Your task to perform on an android device: change the clock display to show seconds Image 0: 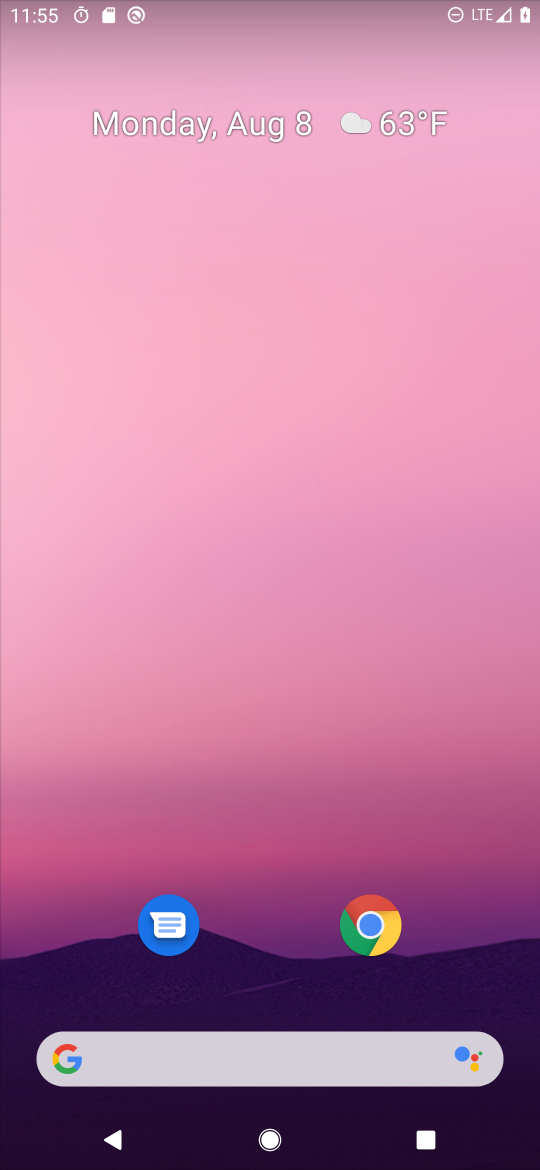
Step 0: drag from (318, 710) to (395, 115)
Your task to perform on an android device: change the clock display to show seconds Image 1: 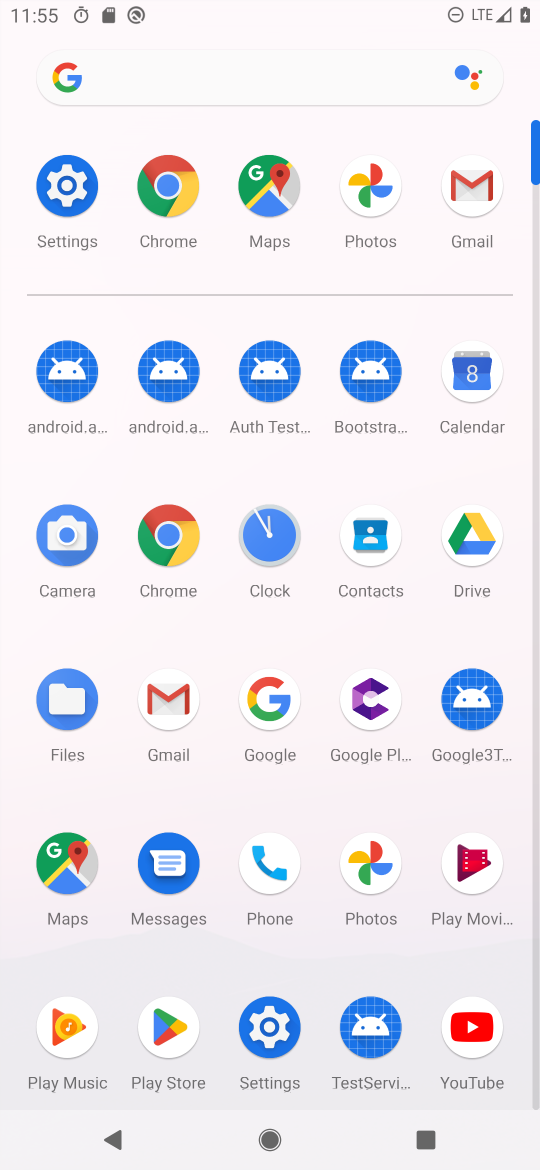
Step 1: click (274, 530)
Your task to perform on an android device: change the clock display to show seconds Image 2: 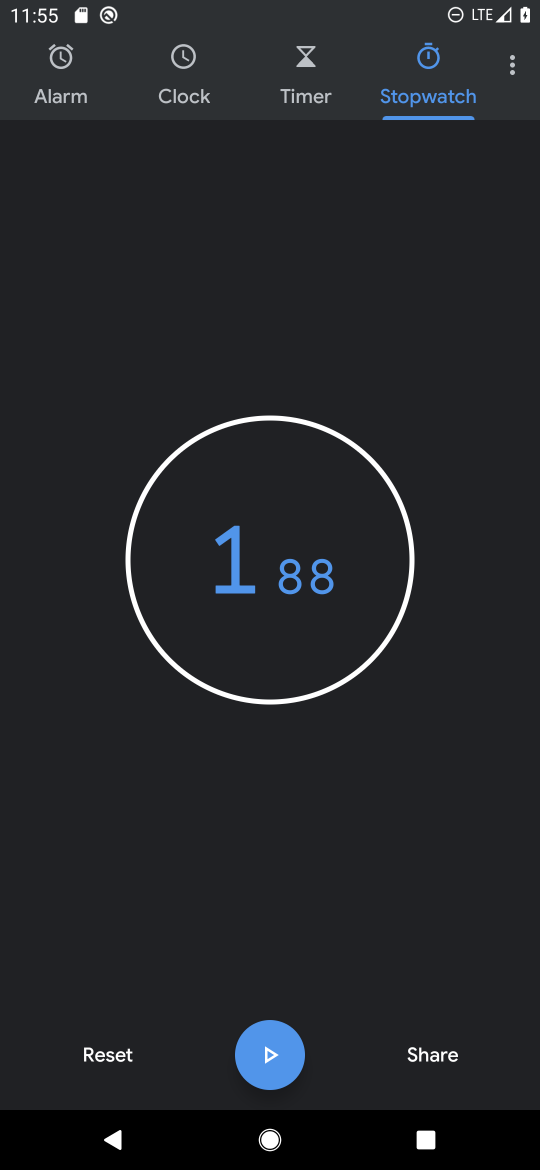
Step 2: click (514, 64)
Your task to perform on an android device: change the clock display to show seconds Image 3: 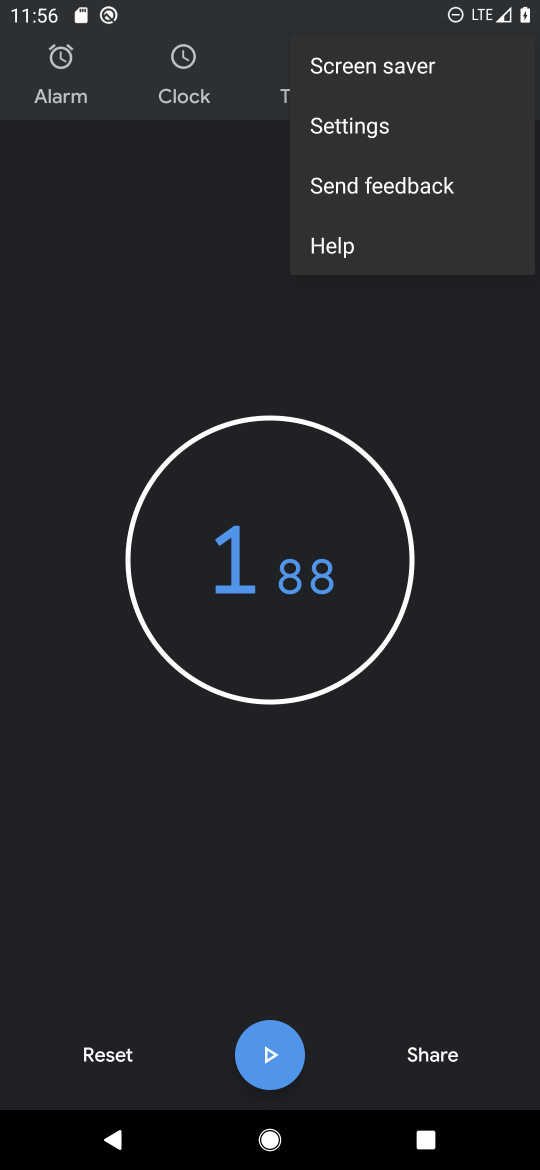
Step 3: click (374, 136)
Your task to perform on an android device: change the clock display to show seconds Image 4: 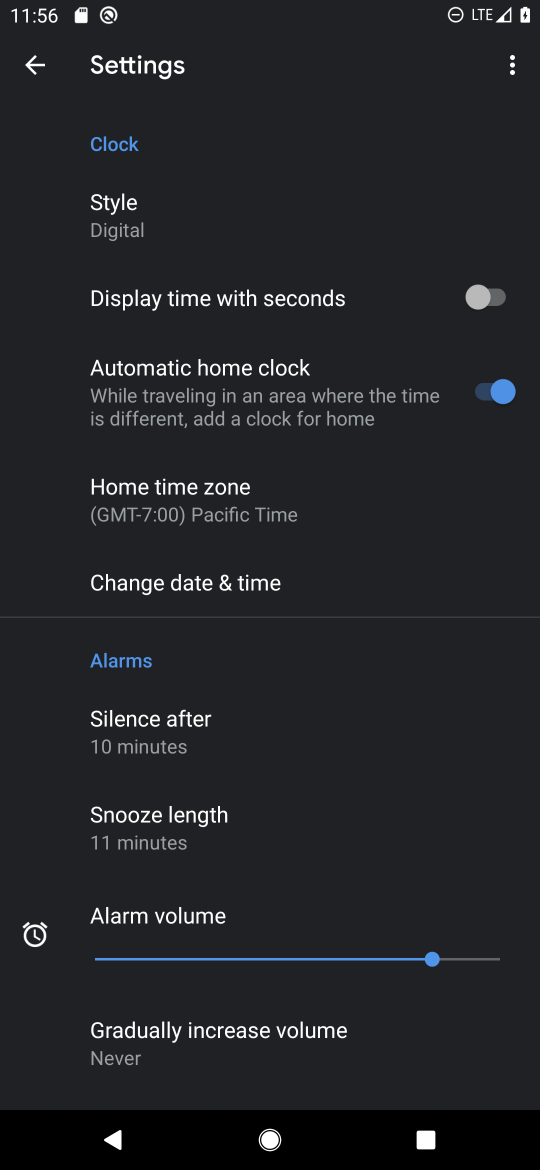
Step 4: click (470, 308)
Your task to perform on an android device: change the clock display to show seconds Image 5: 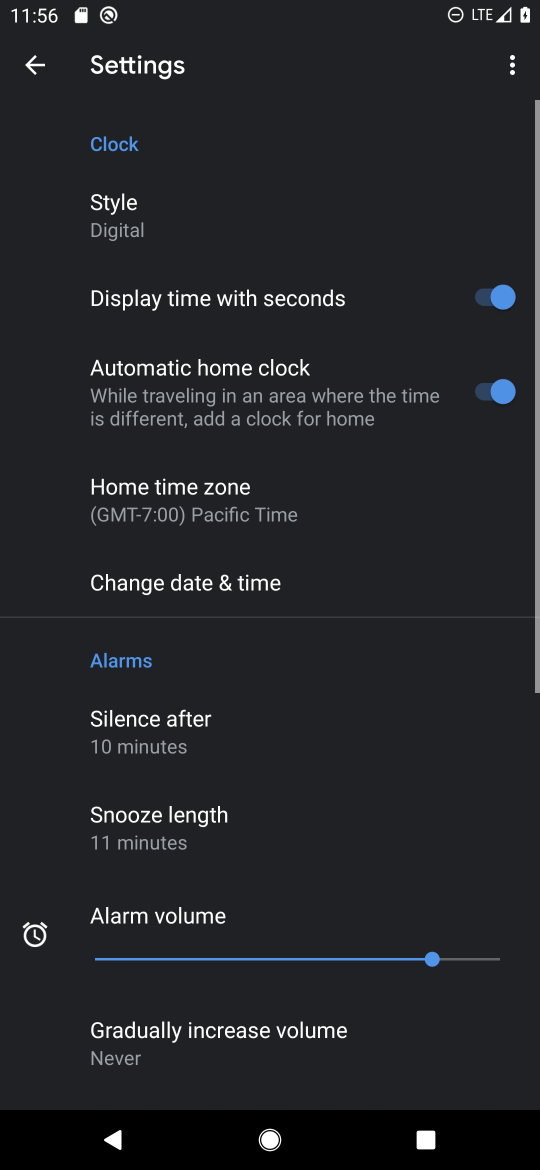
Step 5: task complete